Your task to perform on an android device: turn on priority inbox in the gmail app Image 0: 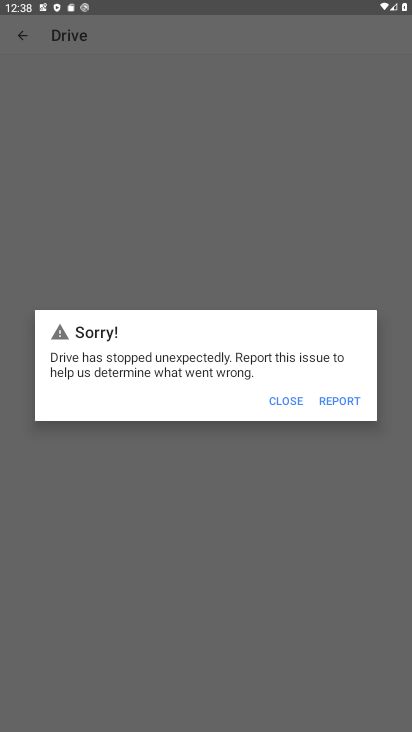
Step 0: press home button
Your task to perform on an android device: turn on priority inbox in the gmail app Image 1: 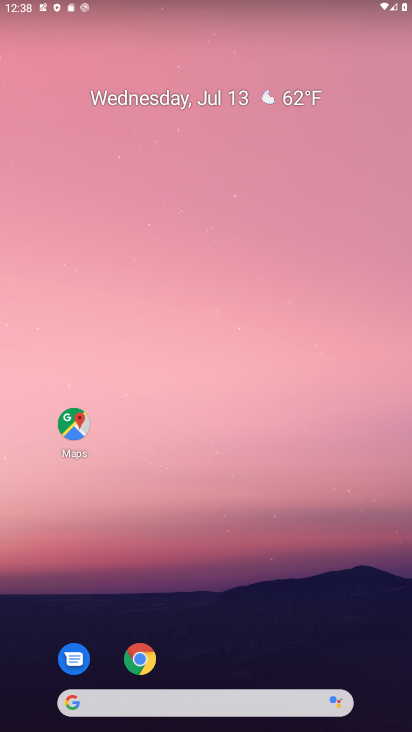
Step 1: drag from (237, 717) to (234, 111)
Your task to perform on an android device: turn on priority inbox in the gmail app Image 2: 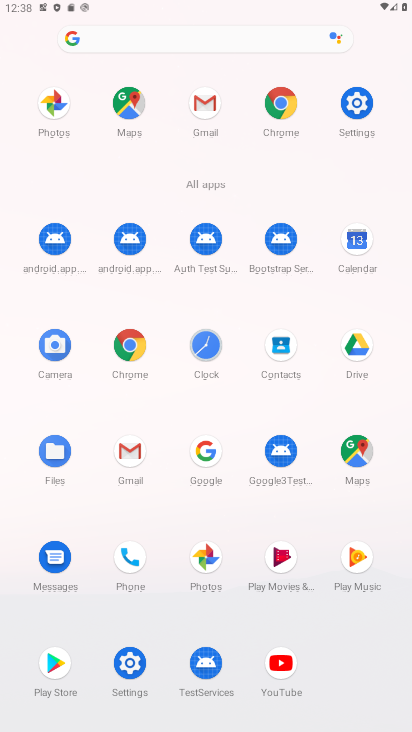
Step 2: click (131, 452)
Your task to perform on an android device: turn on priority inbox in the gmail app Image 3: 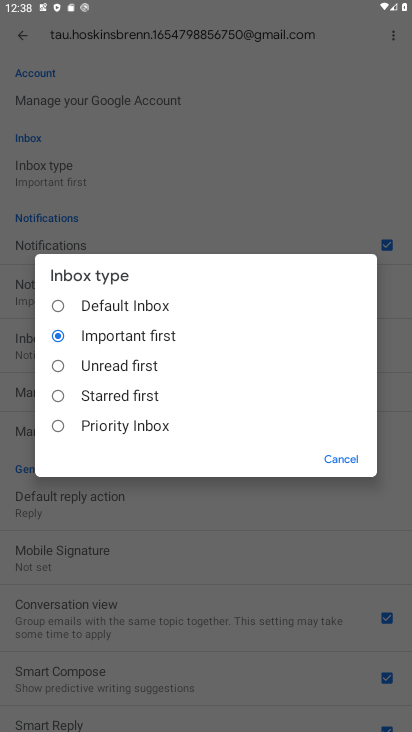
Step 3: click (65, 423)
Your task to perform on an android device: turn on priority inbox in the gmail app Image 4: 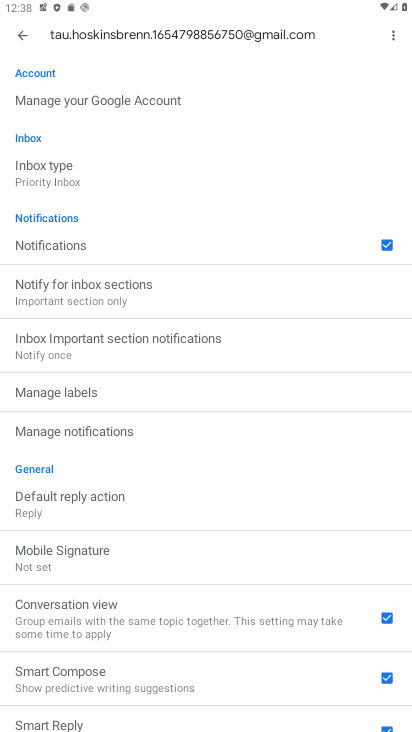
Step 4: task complete